Your task to perform on an android device: Go to Maps Image 0: 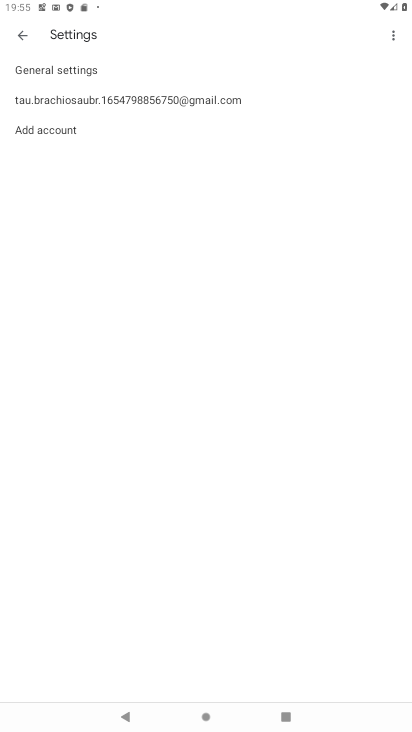
Step 0: press home button
Your task to perform on an android device: Go to Maps Image 1: 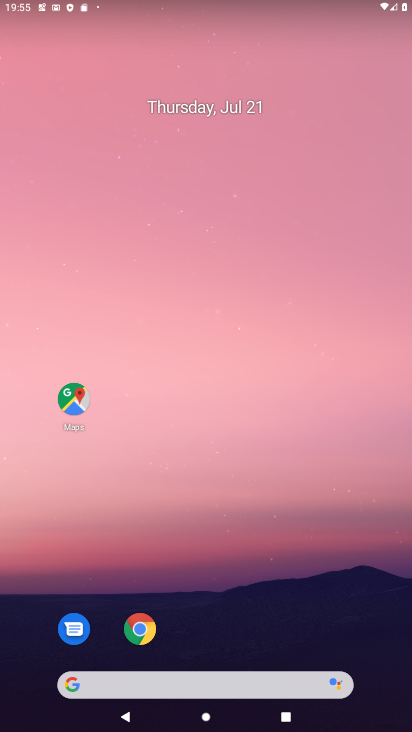
Step 1: click (56, 397)
Your task to perform on an android device: Go to Maps Image 2: 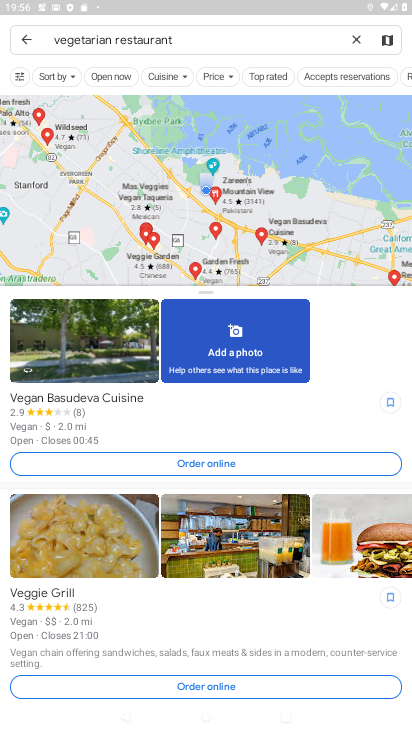
Step 2: click (361, 43)
Your task to perform on an android device: Go to Maps Image 3: 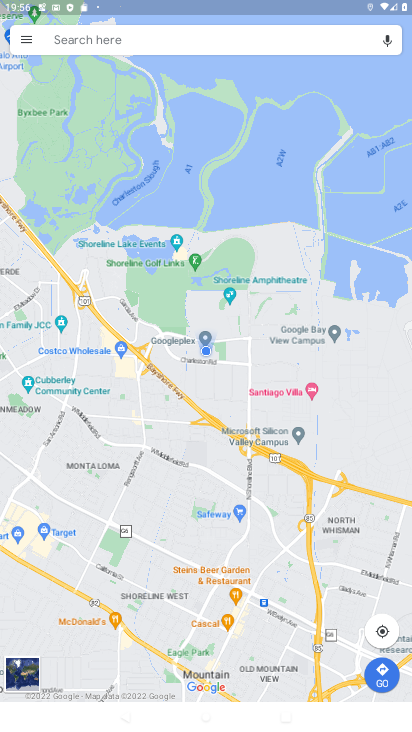
Step 3: task complete